Your task to perform on an android device: Go to Google Image 0: 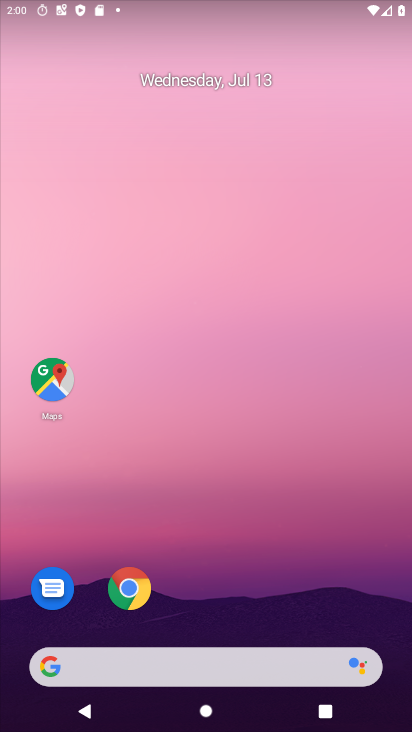
Step 0: drag from (225, 644) to (241, 316)
Your task to perform on an android device: Go to Google Image 1: 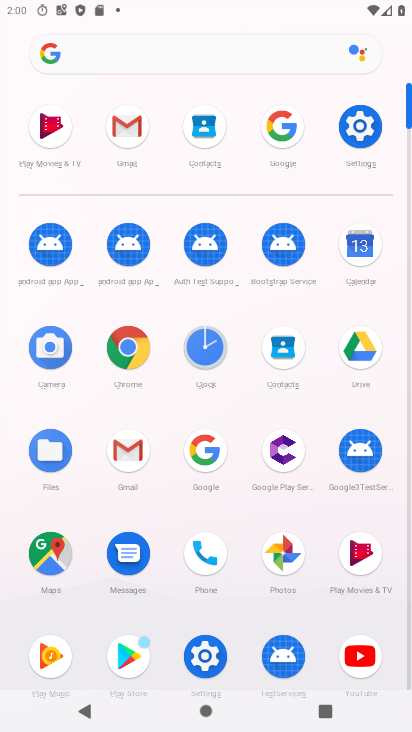
Step 1: click (204, 459)
Your task to perform on an android device: Go to Google Image 2: 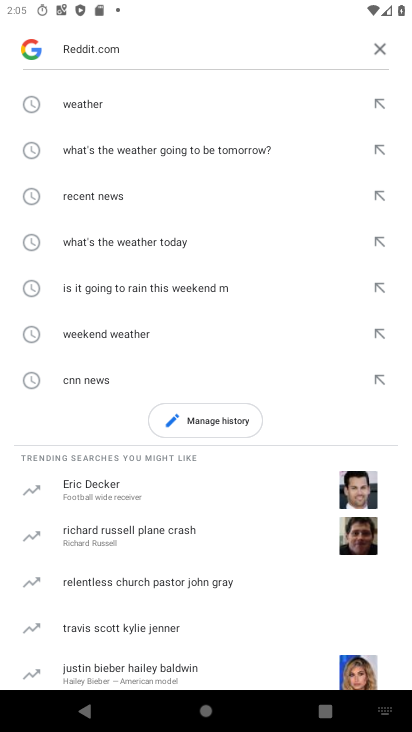
Step 2: task complete